Your task to perform on an android device: find photos in the google photos app Image 0: 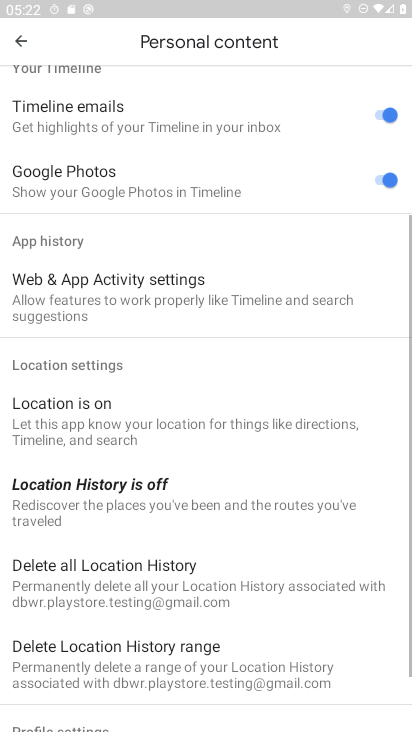
Step 0: press home button
Your task to perform on an android device: find photos in the google photos app Image 1: 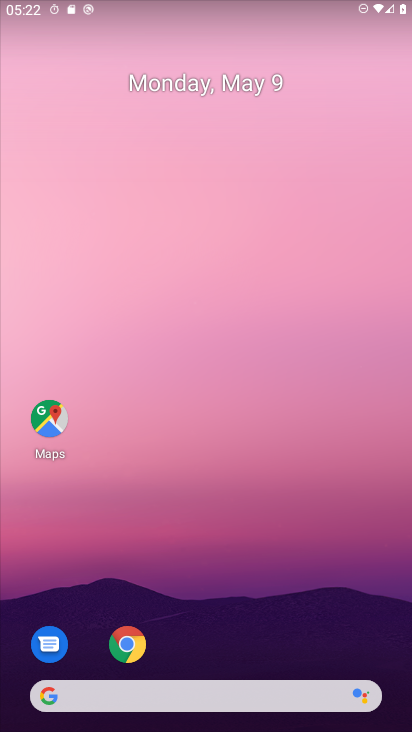
Step 1: drag from (218, 637) to (175, 56)
Your task to perform on an android device: find photos in the google photos app Image 2: 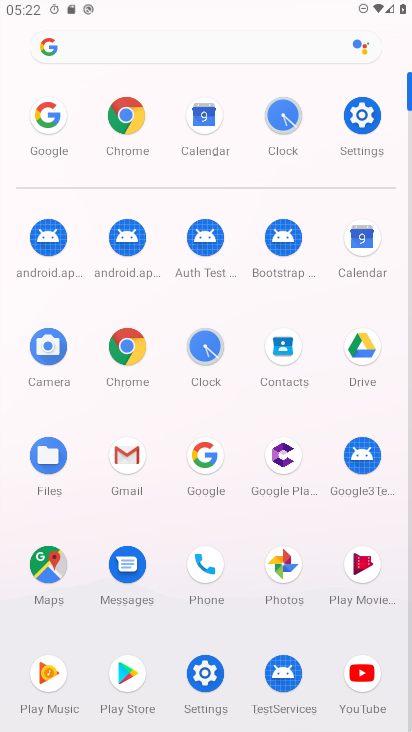
Step 2: click (284, 565)
Your task to perform on an android device: find photos in the google photos app Image 3: 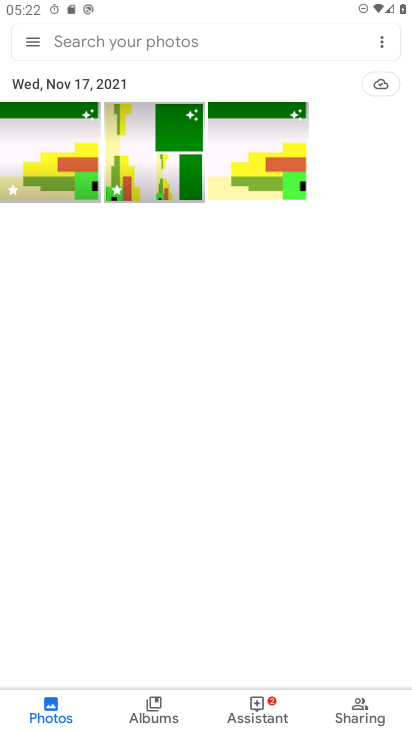
Step 3: click (63, 134)
Your task to perform on an android device: find photos in the google photos app Image 4: 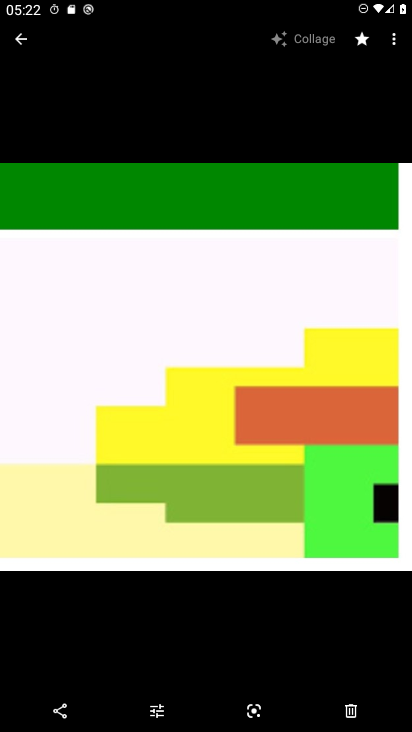
Step 4: task complete